Your task to perform on an android device: turn off translation in the chrome app Image 0: 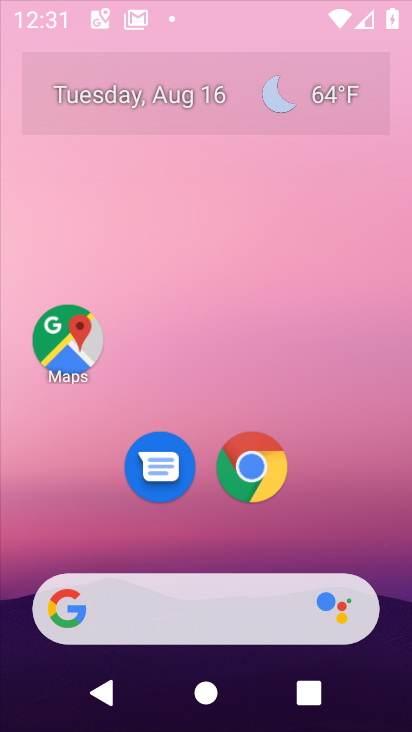
Step 0: press home button
Your task to perform on an android device: turn off translation in the chrome app Image 1: 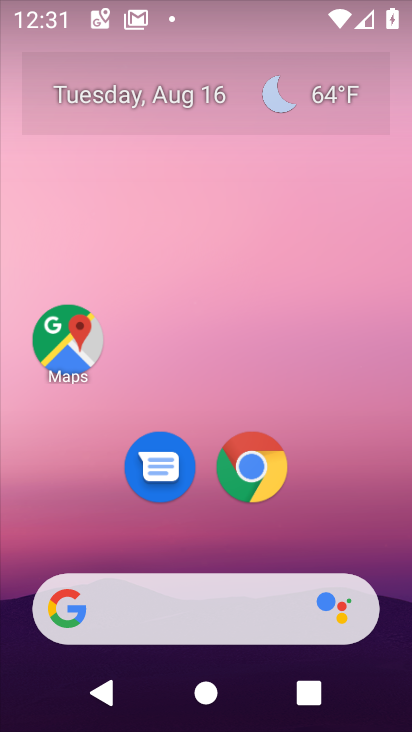
Step 1: drag from (333, 526) to (361, 173)
Your task to perform on an android device: turn off translation in the chrome app Image 2: 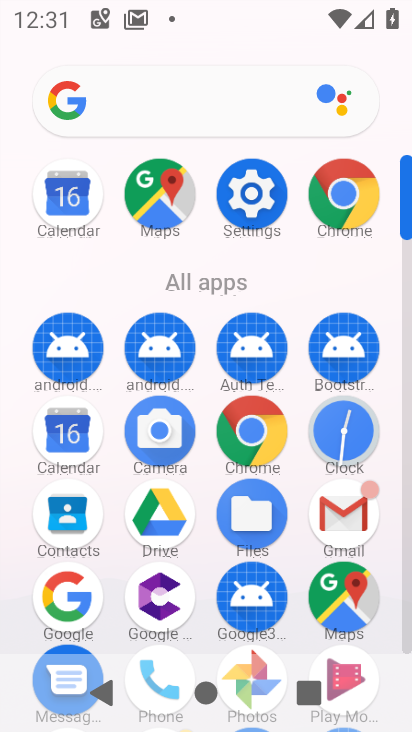
Step 2: click (255, 431)
Your task to perform on an android device: turn off translation in the chrome app Image 3: 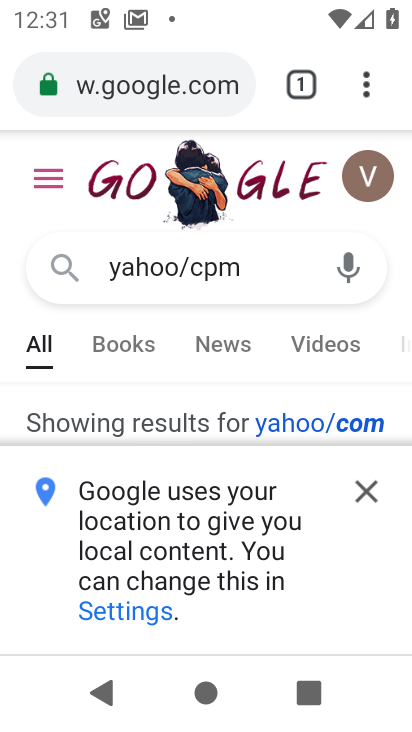
Step 3: click (367, 91)
Your task to perform on an android device: turn off translation in the chrome app Image 4: 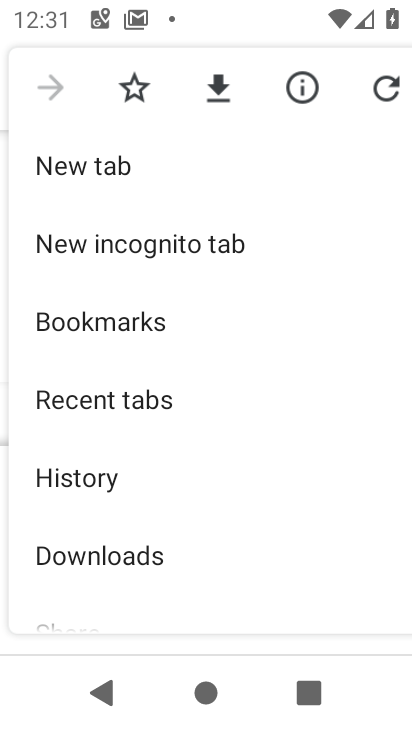
Step 4: drag from (315, 445) to (313, 355)
Your task to perform on an android device: turn off translation in the chrome app Image 5: 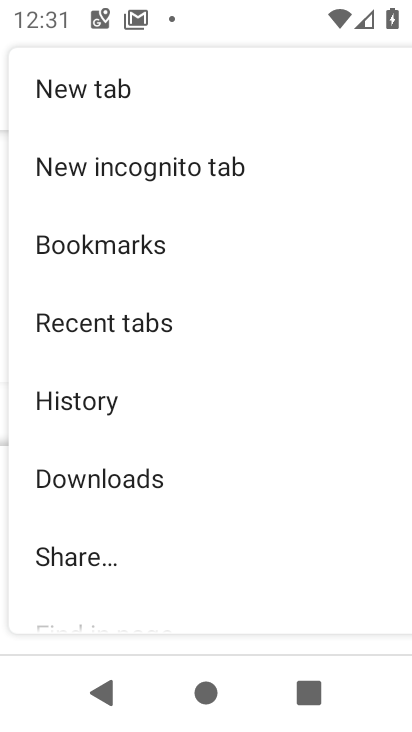
Step 5: drag from (290, 506) to (302, 402)
Your task to perform on an android device: turn off translation in the chrome app Image 6: 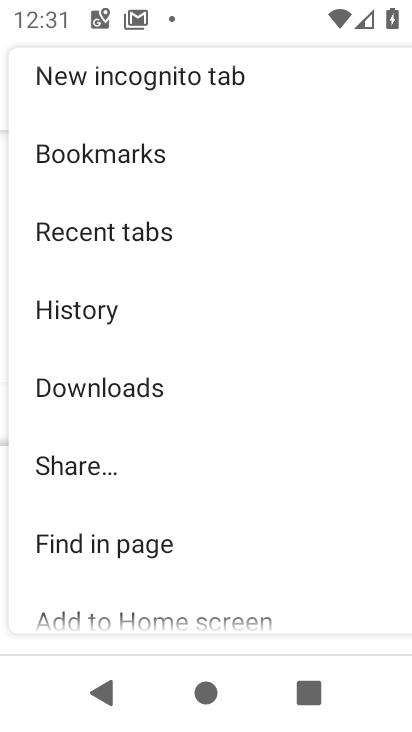
Step 6: drag from (279, 545) to (291, 424)
Your task to perform on an android device: turn off translation in the chrome app Image 7: 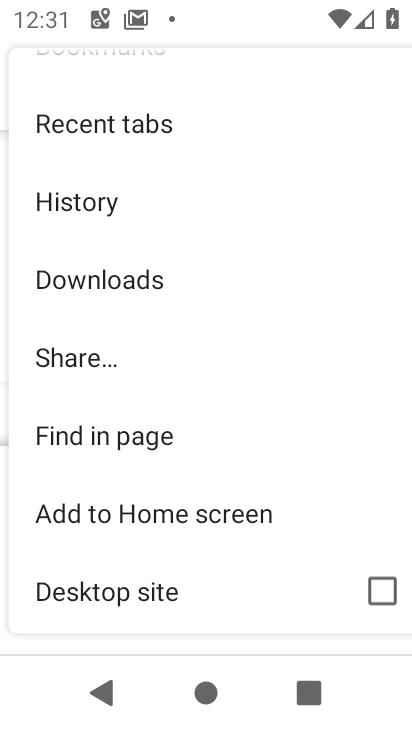
Step 7: drag from (317, 517) to (311, 375)
Your task to perform on an android device: turn off translation in the chrome app Image 8: 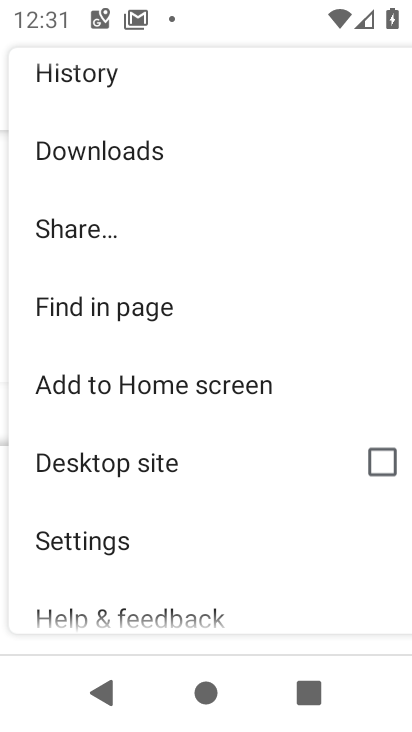
Step 8: drag from (281, 493) to (300, 347)
Your task to perform on an android device: turn off translation in the chrome app Image 9: 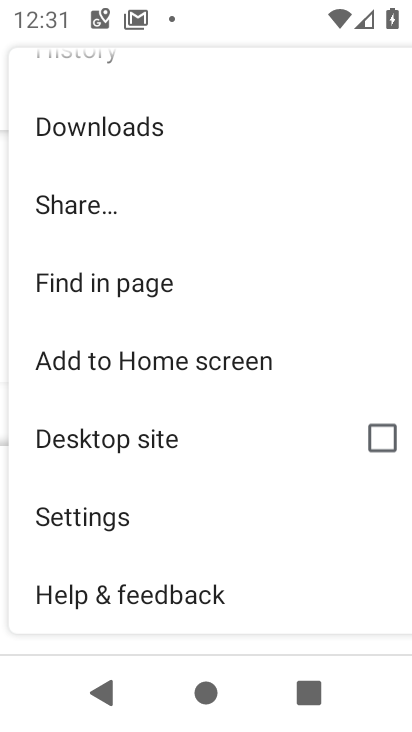
Step 9: click (216, 528)
Your task to perform on an android device: turn off translation in the chrome app Image 10: 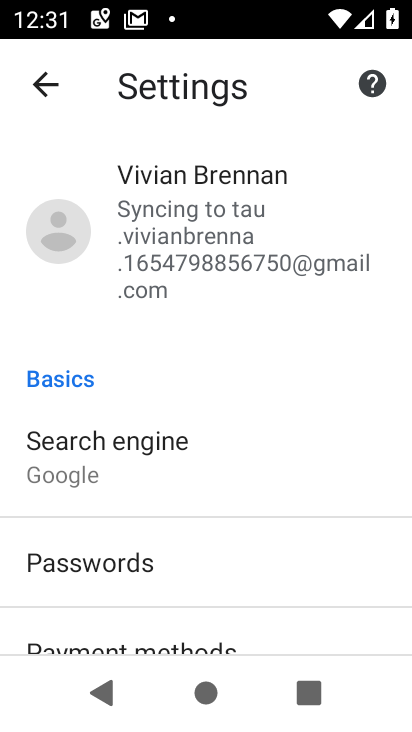
Step 10: drag from (253, 564) to (275, 423)
Your task to perform on an android device: turn off translation in the chrome app Image 11: 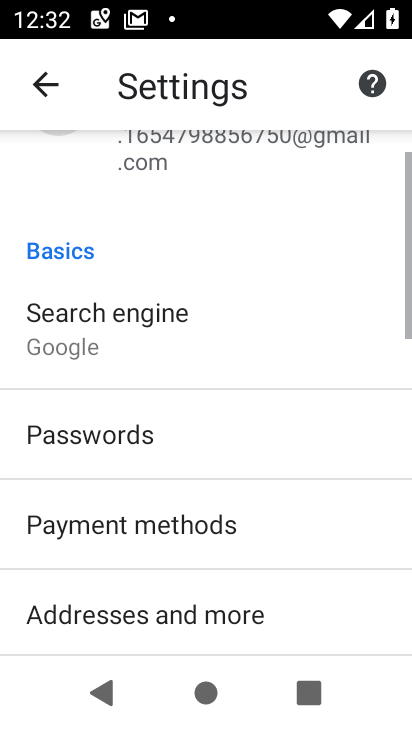
Step 11: drag from (308, 567) to (317, 394)
Your task to perform on an android device: turn off translation in the chrome app Image 12: 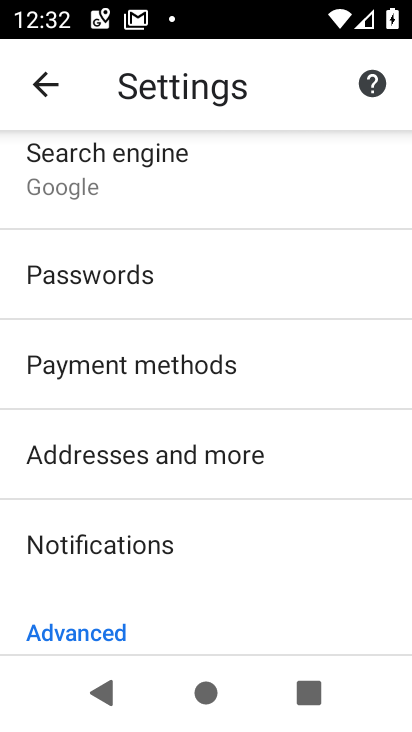
Step 12: drag from (300, 583) to (320, 420)
Your task to perform on an android device: turn off translation in the chrome app Image 13: 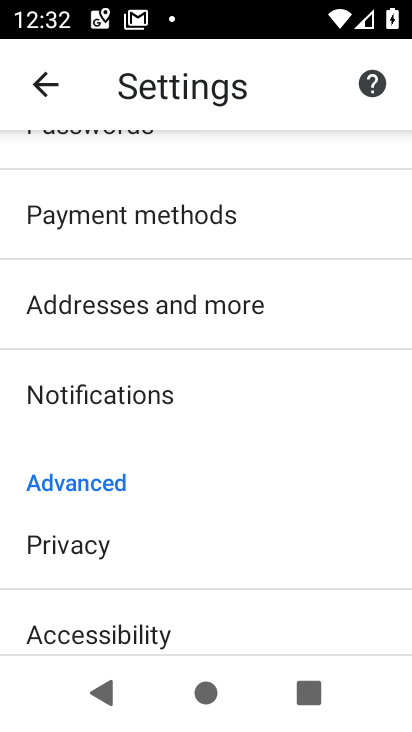
Step 13: drag from (283, 590) to (284, 455)
Your task to perform on an android device: turn off translation in the chrome app Image 14: 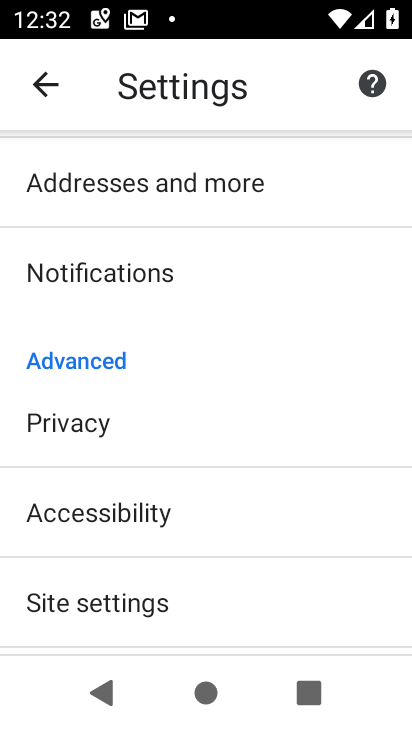
Step 14: drag from (263, 574) to (276, 445)
Your task to perform on an android device: turn off translation in the chrome app Image 15: 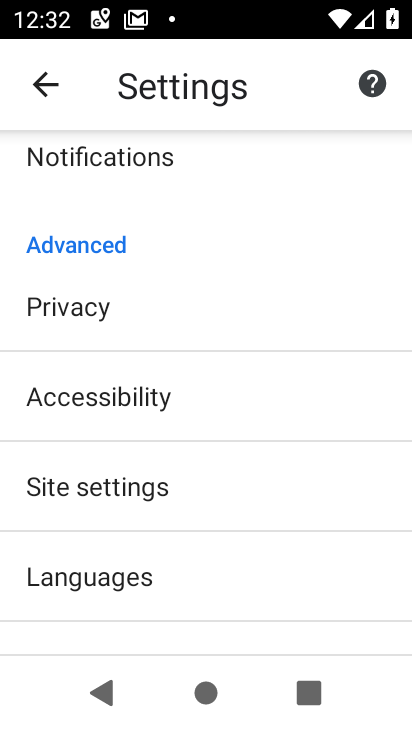
Step 15: drag from (263, 584) to (288, 441)
Your task to perform on an android device: turn off translation in the chrome app Image 16: 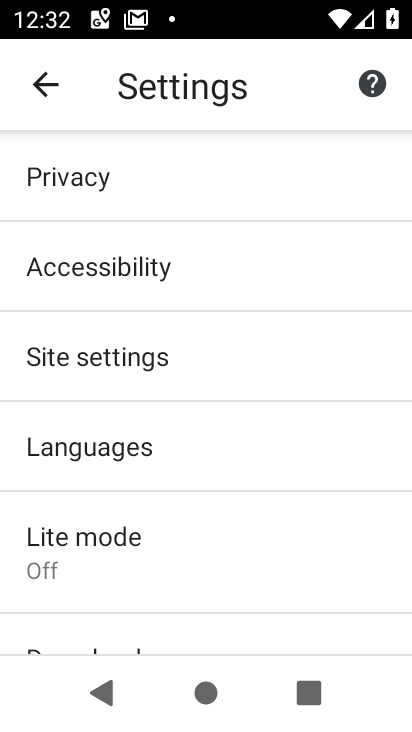
Step 16: click (259, 463)
Your task to perform on an android device: turn off translation in the chrome app Image 17: 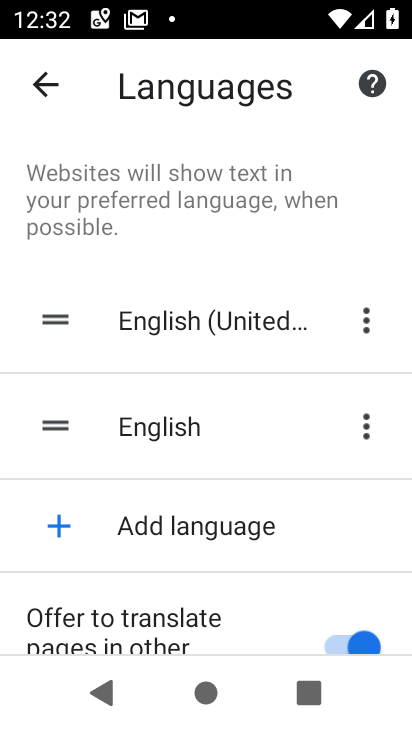
Step 17: drag from (241, 625) to (260, 516)
Your task to perform on an android device: turn off translation in the chrome app Image 18: 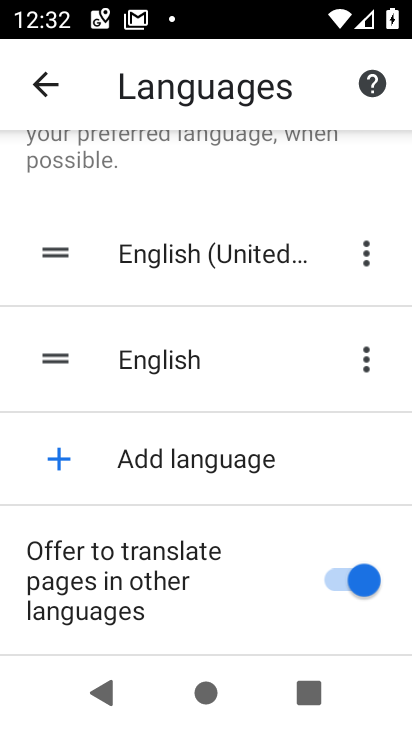
Step 18: click (348, 586)
Your task to perform on an android device: turn off translation in the chrome app Image 19: 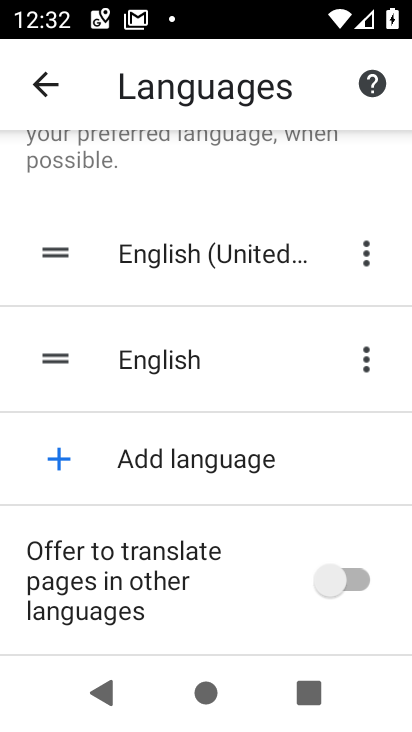
Step 19: task complete